Your task to perform on an android device: What's on my calendar tomorrow? Image 0: 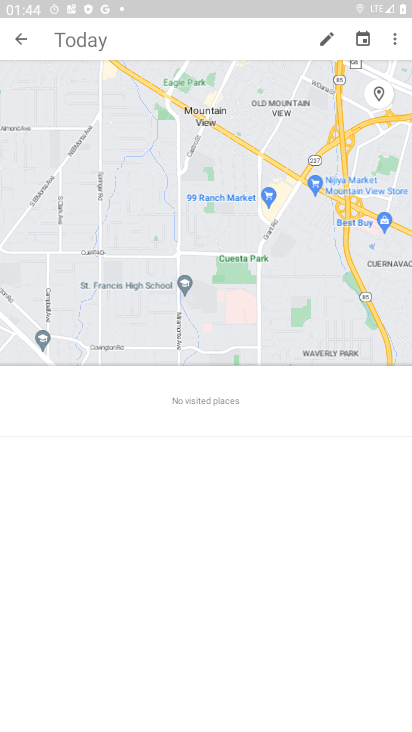
Step 0: press home button
Your task to perform on an android device: What's on my calendar tomorrow? Image 1: 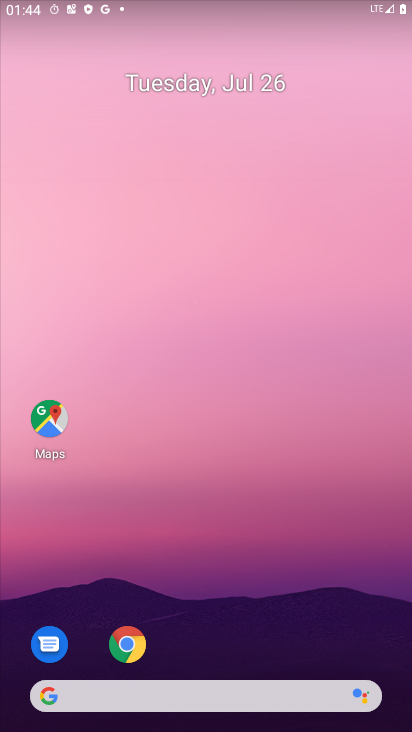
Step 1: drag from (266, 670) to (245, 26)
Your task to perform on an android device: What's on my calendar tomorrow? Image 2: 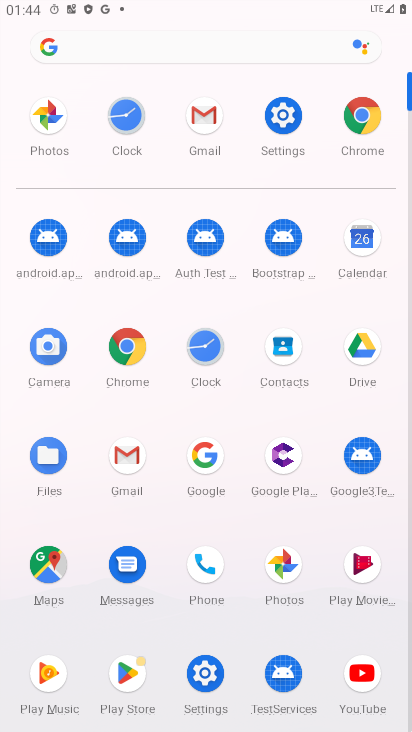
Step 2: click (358, 242)
Your task to perform on an android device: What's on my calendar tomorrow? Image 3: 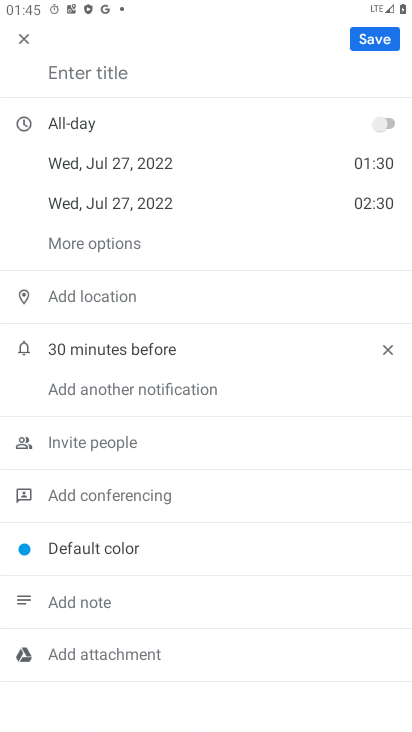
Step 3: click (11, 35)
Your task to perform on an android device: What's on my calendar tomorrow? Image 4: 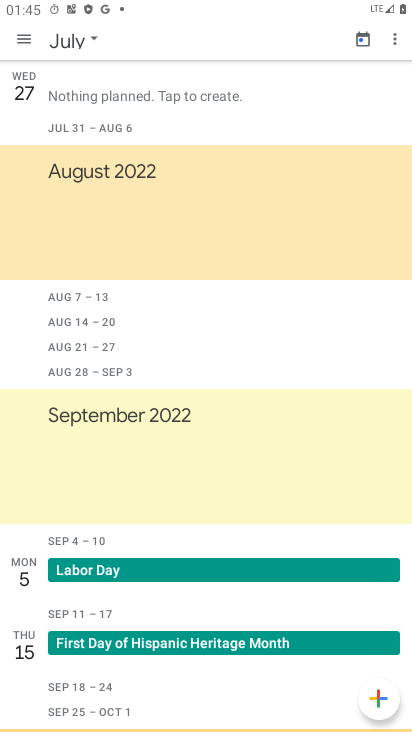
Step 4: click (91, 40)
Your task to perform on an android device: What's on my calendar tomorrow? Image 5: 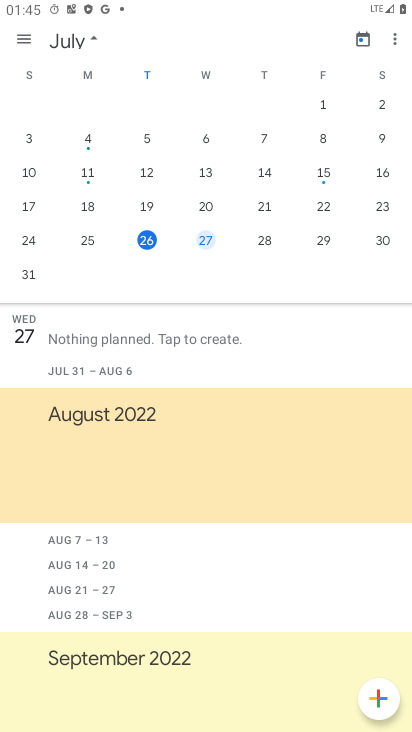
Step 5: click (207, 244)
Your task to perform on an android device: What's on my calendar tomorrow? Image 6: 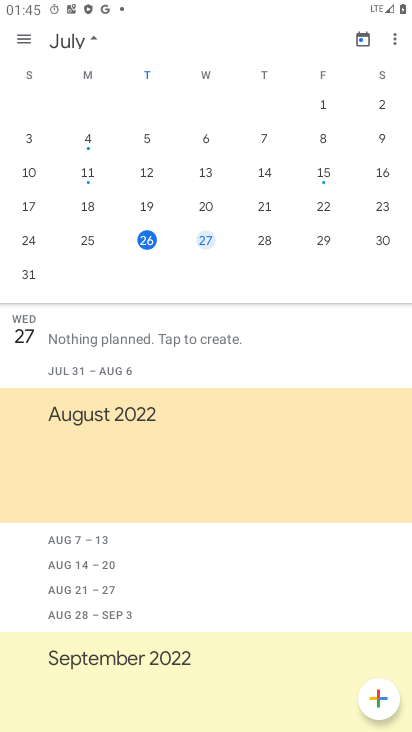
Step 6: click (203, 239)
Your task to perform on an android device: What's on my calendar tomorrow? Image 7: 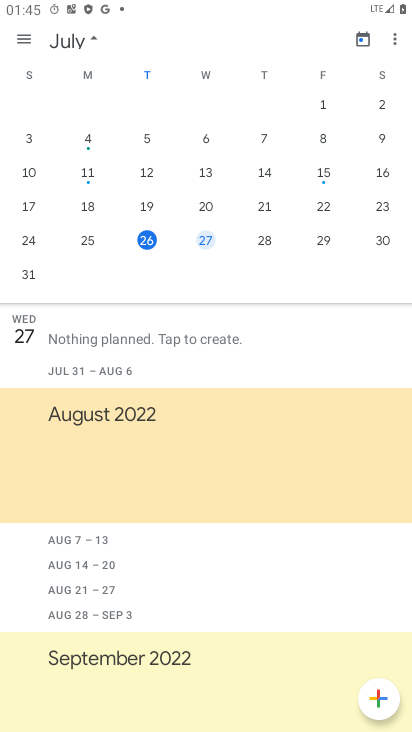
Step 7: click (204, 243)
Your task to perform on an android device: What's on my calendar tomorrow? Image 8: 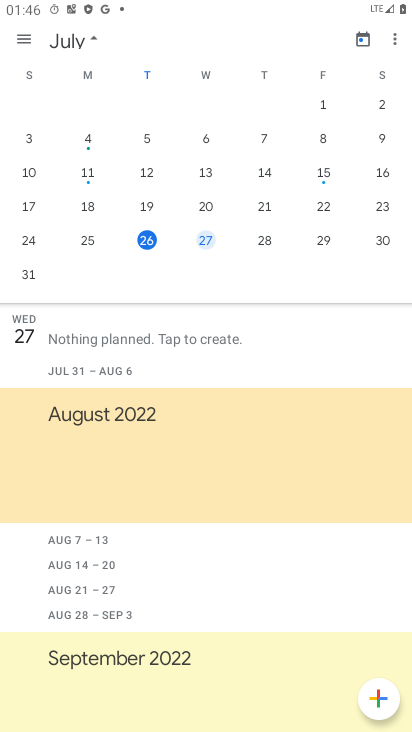
Step 8: click (206, 237)
Your task to perform on an android device: What's on my calendar tomorrow? Image 9: 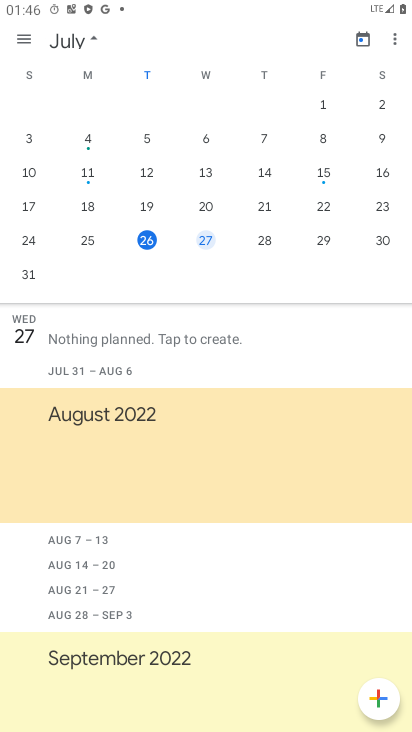
Step 9: click (31, 336)
Your task to perform on an android device: What's on my calendar tomorrow? Image 10: 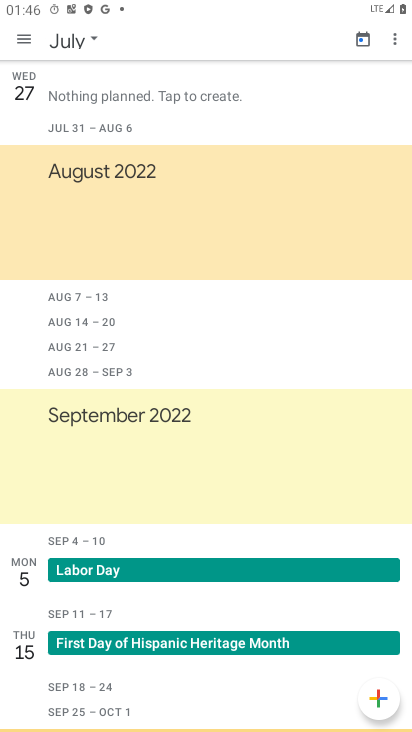
Step 10: click (141, 97)
Your task to perform on an android device: What's on my calendar tomorrow? Image 11: 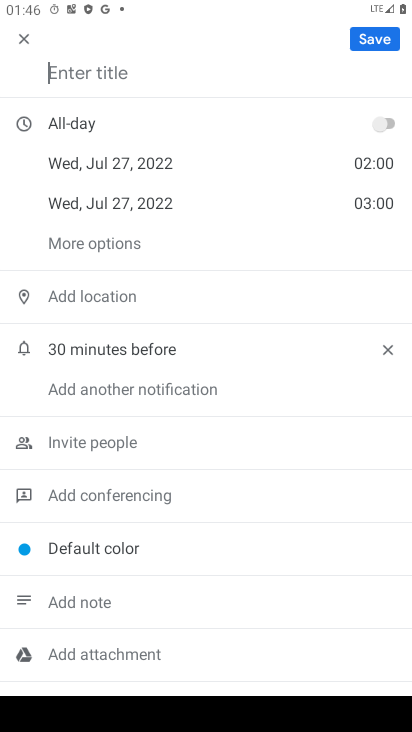
Step 11: task complete